Your task to perform on an android device: Open Google Image 0: 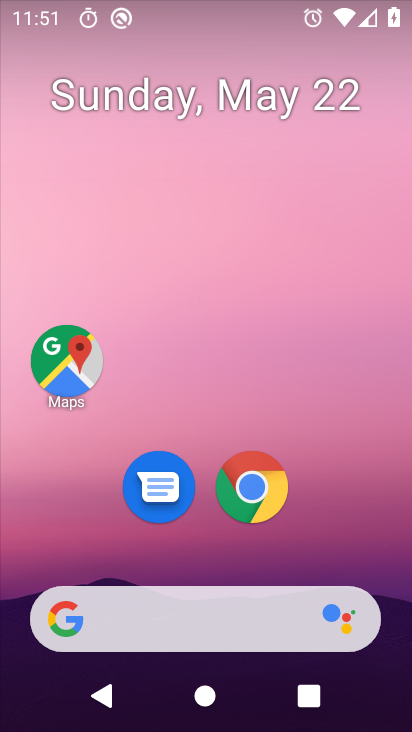
Step 0: drag from (366, 522) to (346, 263)
Your task to perform on an android device: Open Google Image 1: 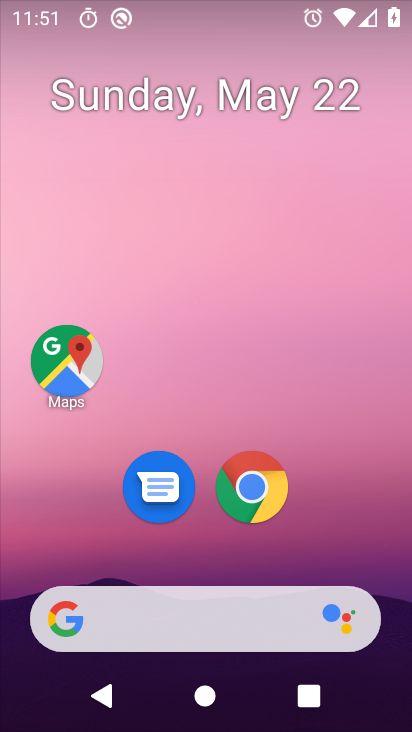
Step 1: drag from (338, 480) to (332, 127)
Your task to perform on an android device: Open Google Image 2: 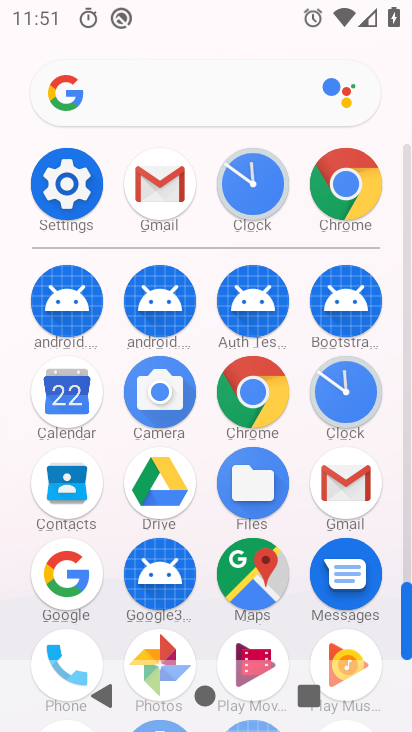
Step 2: click (85, 578)
Your task to perform on an android device: Open Google Image 3: 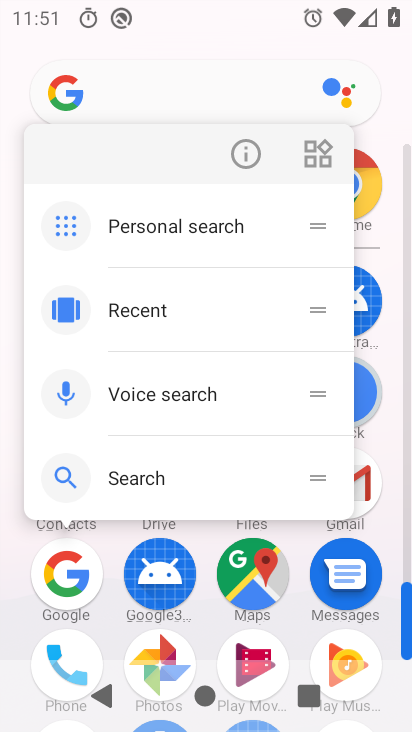
Step 3: click (85, 580)
Your task to perform on an android device: Open Google Image 4: 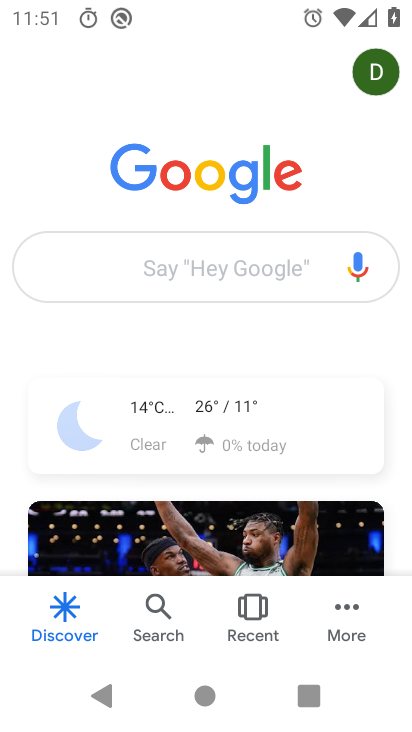
Step 4: task complete